Your task to perform on an android device: snooze an email in the gmail app Image 0: 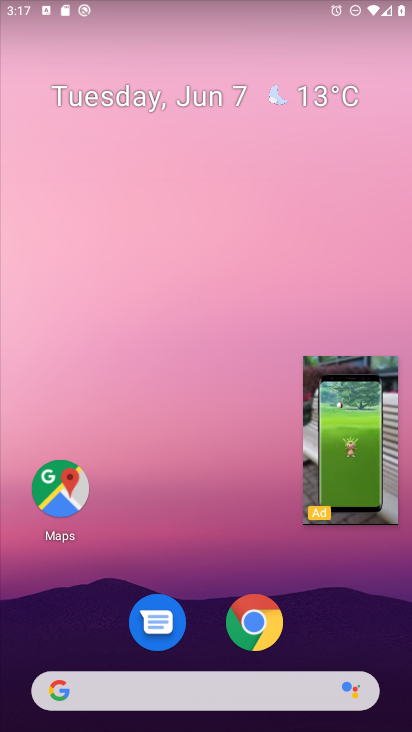
Step 0: click (390, 370)
Your task to perform on an android device: snooze an email in the gmail app Image 1: 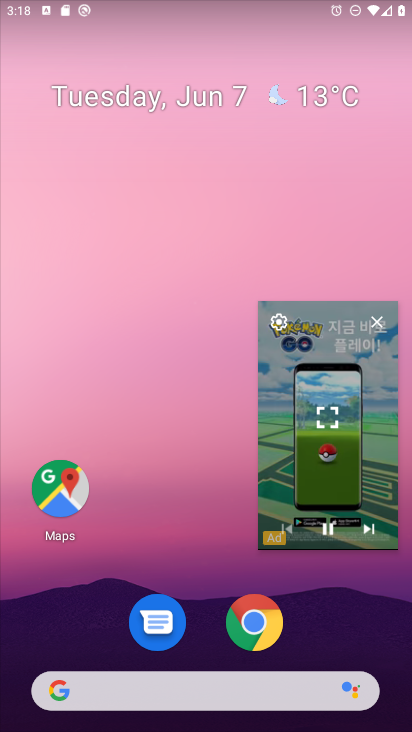
Step 1: click (365, 309)
Your task to perform on an android device: snooze an email in the gmail app Image 2: 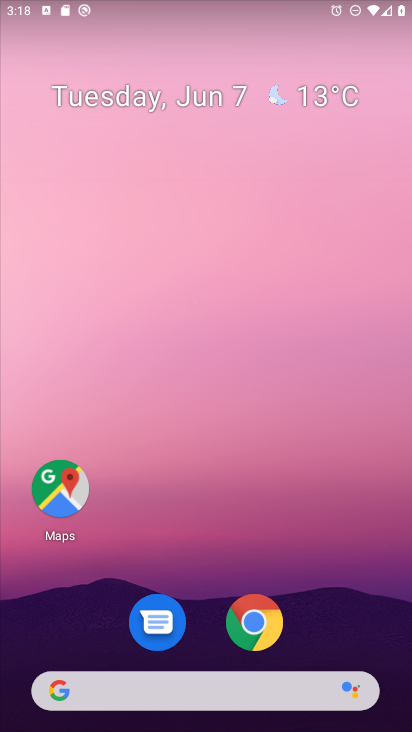
Step 2: drag from (311, 616) to (224, 70)
Your task to perform on an android device: snooze an email in the gmail app Image 3: 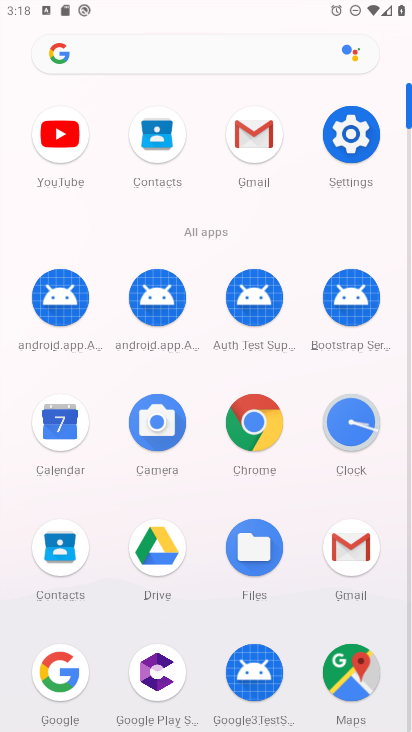
Step 3: click (358, 528)
Your task to perform on an android device: snooze an email in the gmail app Image 4: 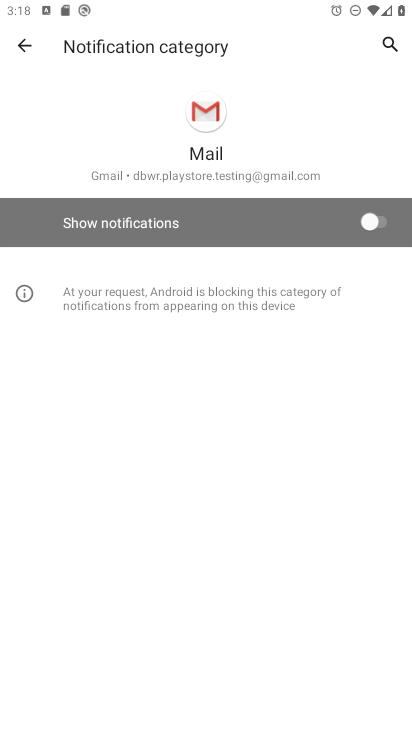
Step 4: click (21, 48)
Your task to perform on an android device: snooze an email in the gmail app Image 5: 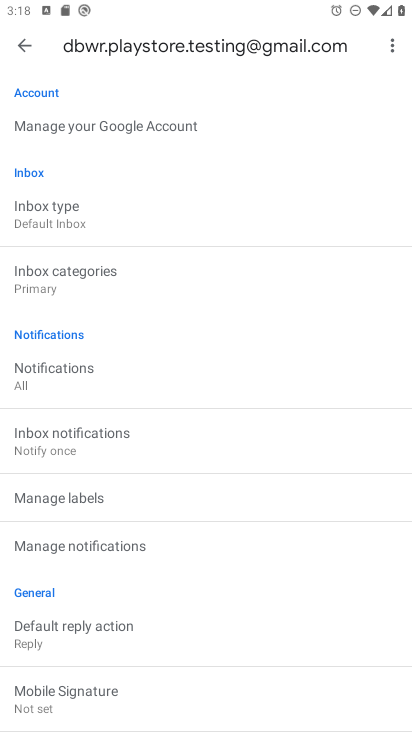
Step 5: click (14, 47)
Your task to perform on an android device: snooze an email in the gmail app Image 6: 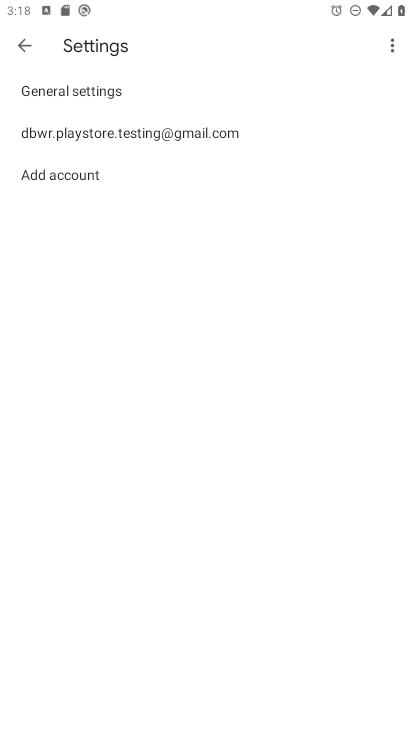
Step 6: click (26, 45)
Your task to perform on an android device: snooze an email in the gmail app Image 7: 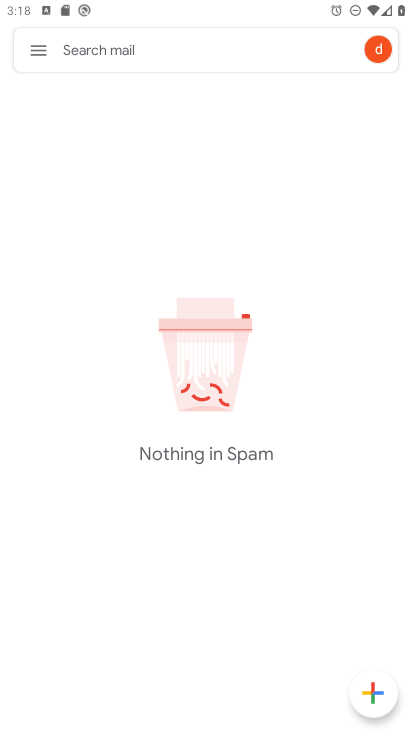
Step 7: click (35, 51)
Your task to perform on an android device: snooze an email in the gmail app Image 8: 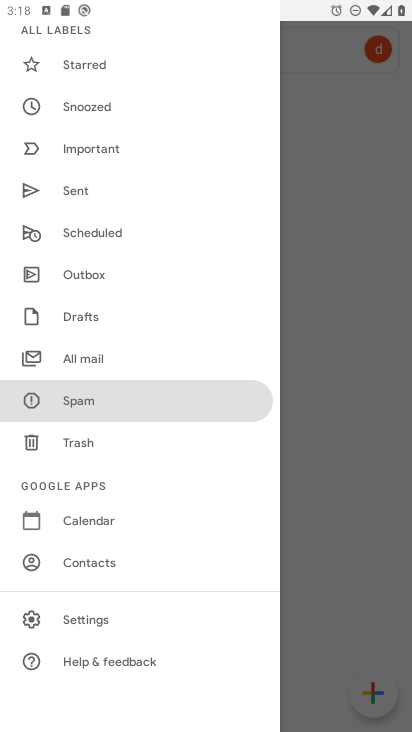
Step 8: click (96, 373)
Your task to perform on an android device: snooze an email in the gmail app Image 9: 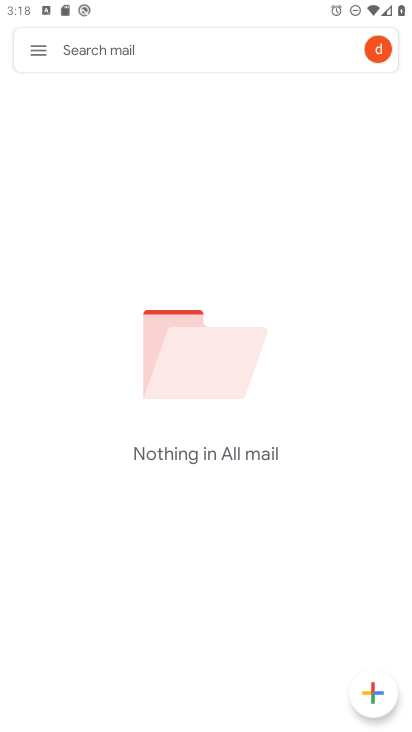
Step 9: task complete